Your task to perform on an android device: turn vacation reply on in the gmail app Image 0: 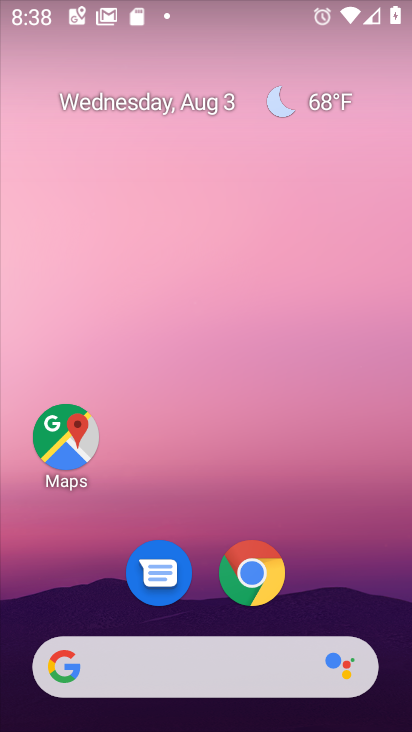
Step 0: drag from (341, 612) to (321, 22)
Your task to perform on an android device: turn vacation reply on in the gmail app Image 1: 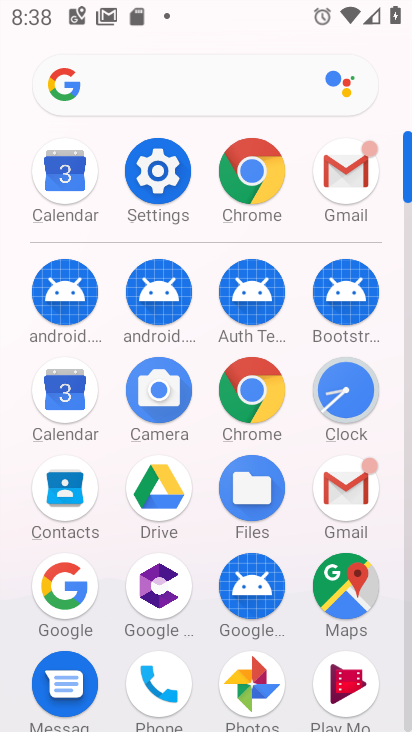
Step 1: click (345, 192)
Your task to perform on an android device: turn vacation reply on in the gmail app Image 2: 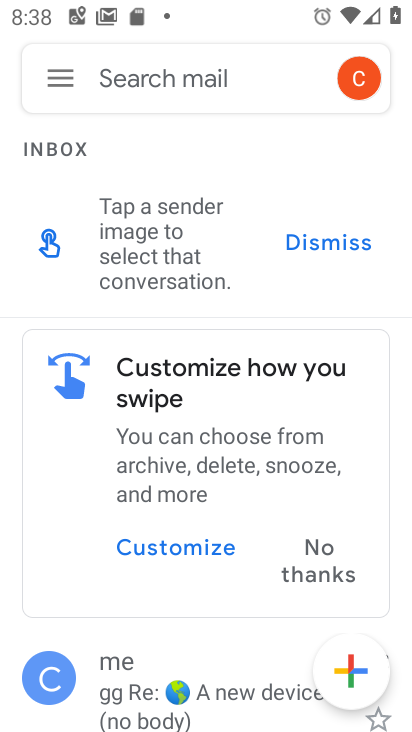
Step 2: click (67, 80)
Your task to perform on an android device: turn vacation reply on in the gmail app Image 3: 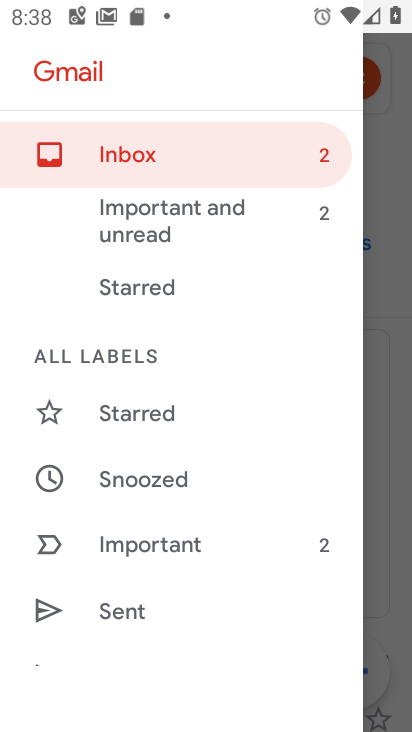
Step 3: drag from (168, 541) to (165, 153)
Your task to perform on an android device: turn vacation reply on in the gmail app Image 4: 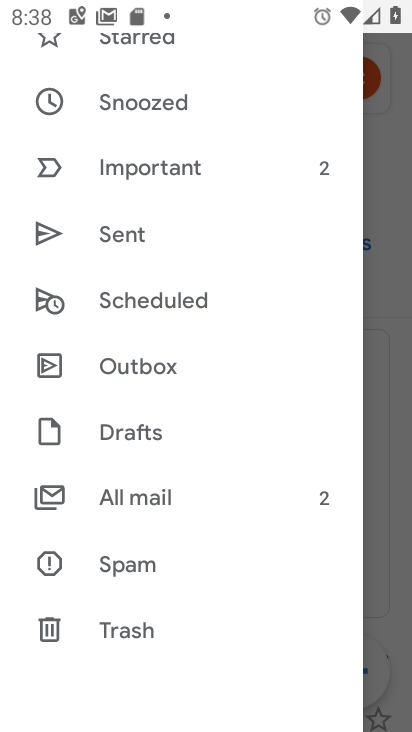
Step 4: drag from (172, 544) to (142, 99)
Your task to perform on an android device: turn vacation reply on in the gmail app Image 5: 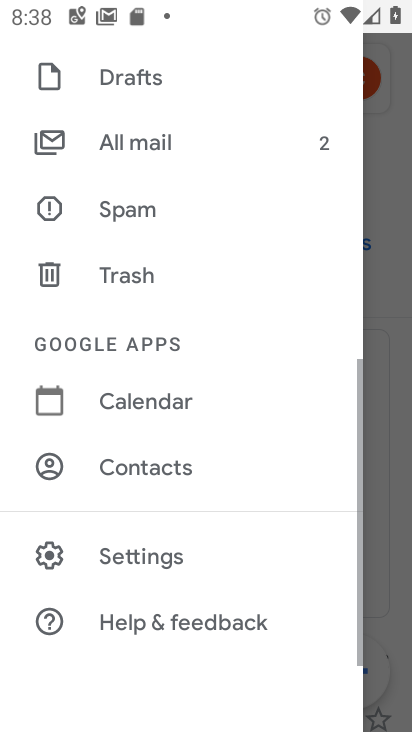
Step 5: click (121, 556)
Your task to perform on an android device: turn vacation reply on in the gmail app Image 6: 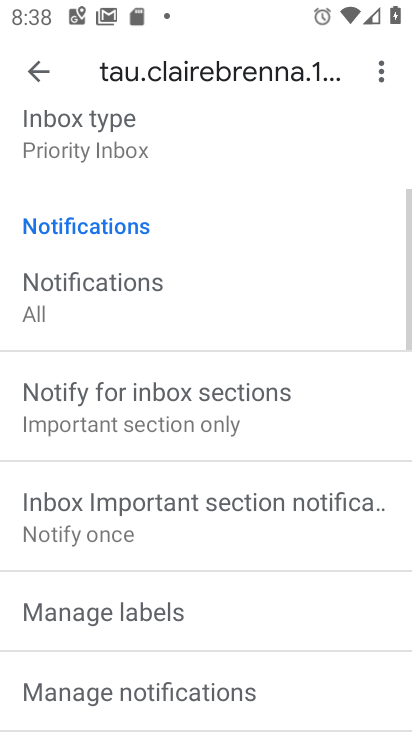
Step 6: drag from (207, 588) to (198, 181)
Your task to perform on an android device: turn vacation reply on in the gmail app Image 7: 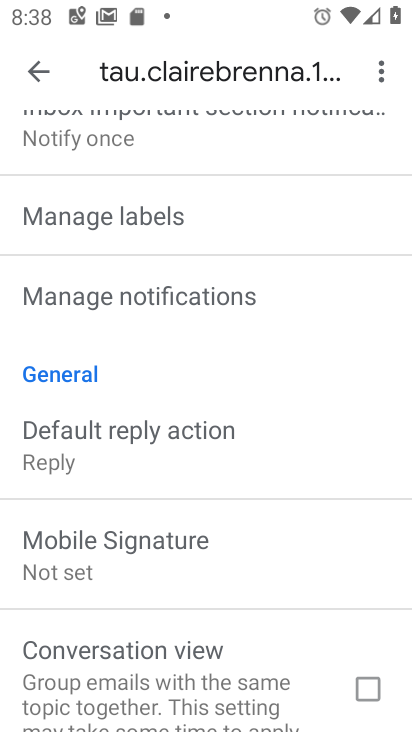
Step 7: drag from (198, 569) to (205, 134)
Your task to perform on an android device: turn vacation reply on in the gmail app Image 8: 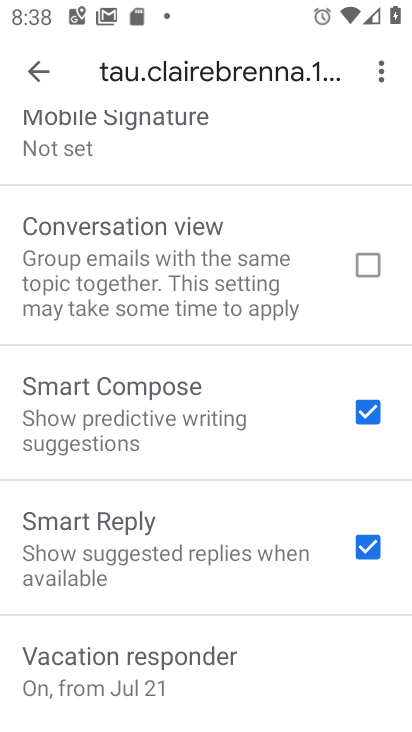
Step 8: drag from (157, 544) to (177, 214)
Your task to perform on an android device: turn vacation reply on in the gmail app Image 9: 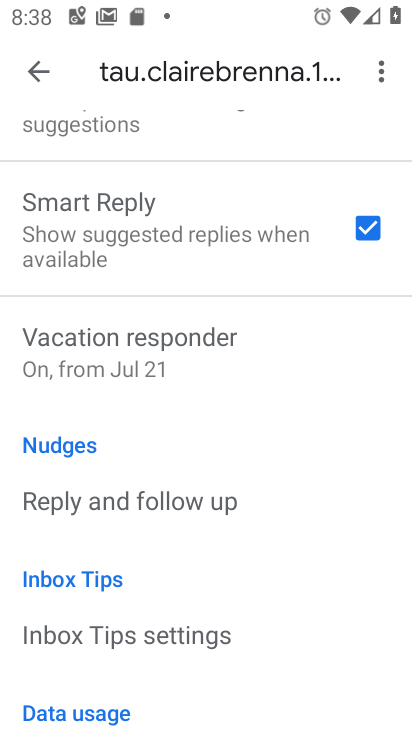
Step 9: click (75, 346)
Your task to perform on an android device: turn vacation reply on in the gmail app Image 10: 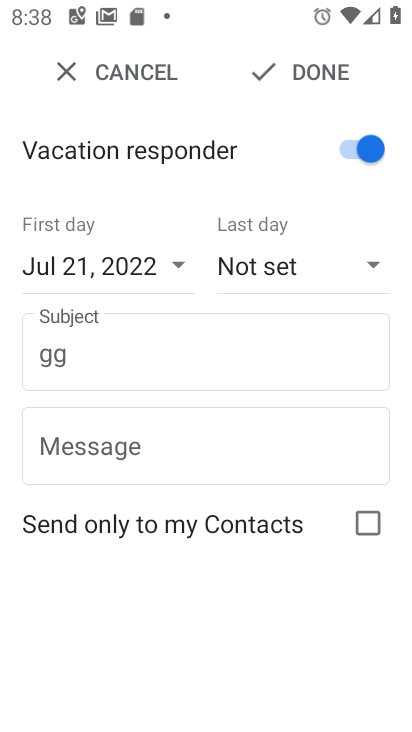
Step 10: click (317, 81)
Your task to perform on an android device: turn vacation reply on in the gmail app Image 11: 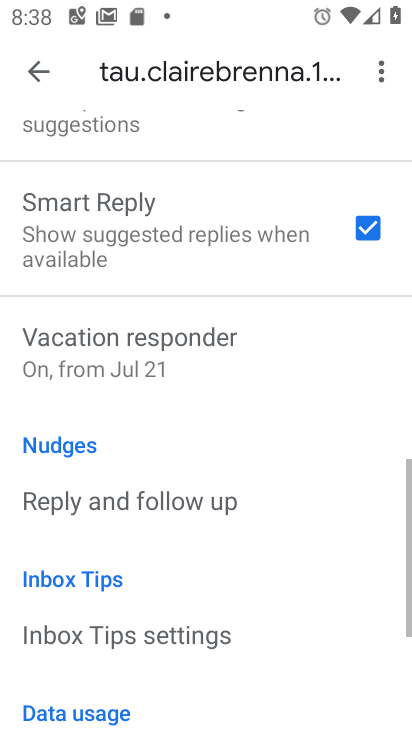
Step 11: task complete